Your task to perform on an android device: snooze an email in the gmail app Image 0: 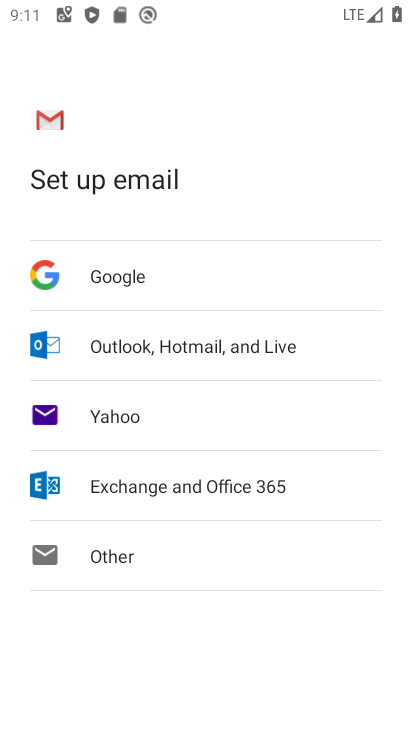
Step 0: press home button
Your task to perform on an android device: snooze an email in the gmail app Image 1: 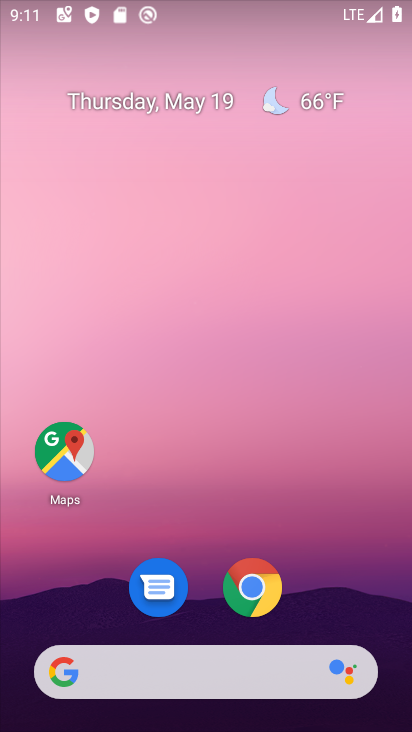
Step 1: drag from (277, 691) to (214, 433)
Your task to perform on an android device: snooze an email in the gmail app Image 2: 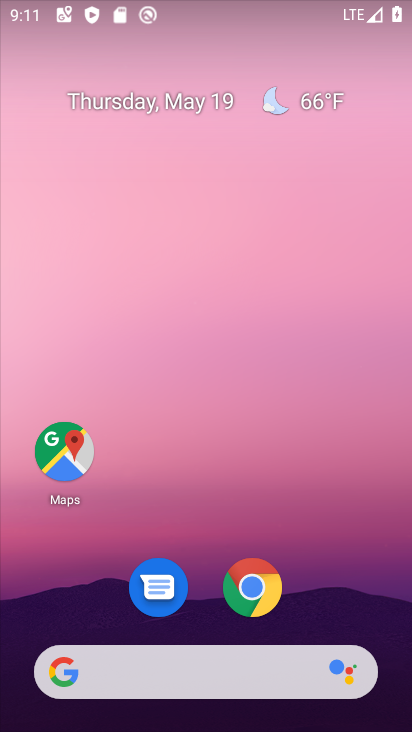
Step 2: drag from (249, 671) to (179, 276)
Your task to perform on an android device: snooze an email in the gmail app Image 3: 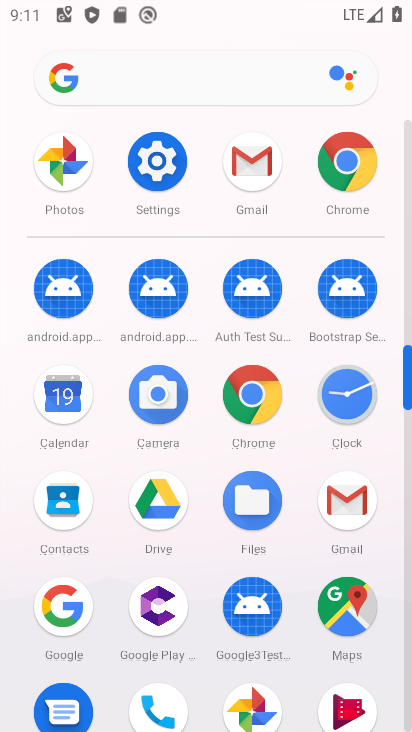
Step 3: click (341, 496)
Your task to perform on an android device: snooze an email in the gmail app Image 4: 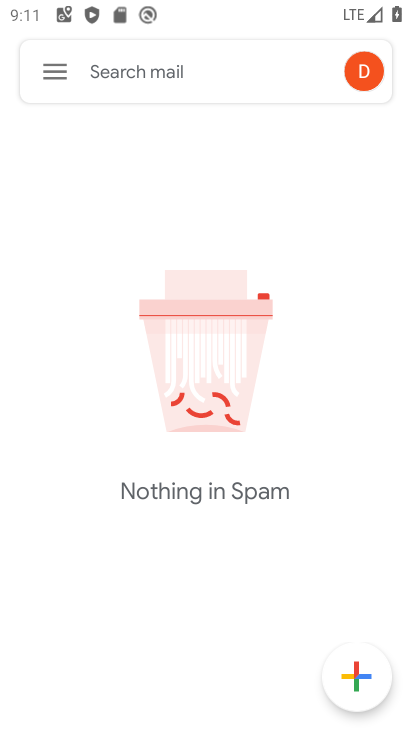
Step 4: click (53, 69)
Your task to perform on an android device: snooze an email in the gmail app Image 5: 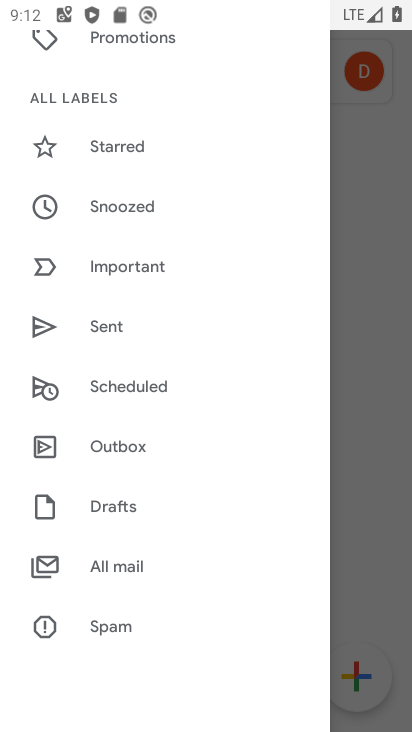
Step 5: click (144, 208)
Your task to perform on an android device: snooze an email in the gmail app Image 6: 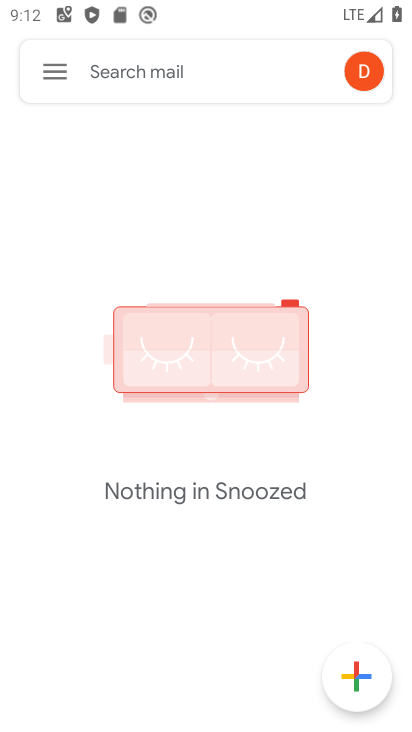
Step 6: task complete